Your task to perform on an android device: Show the shopping cart on ebay. Image 0: 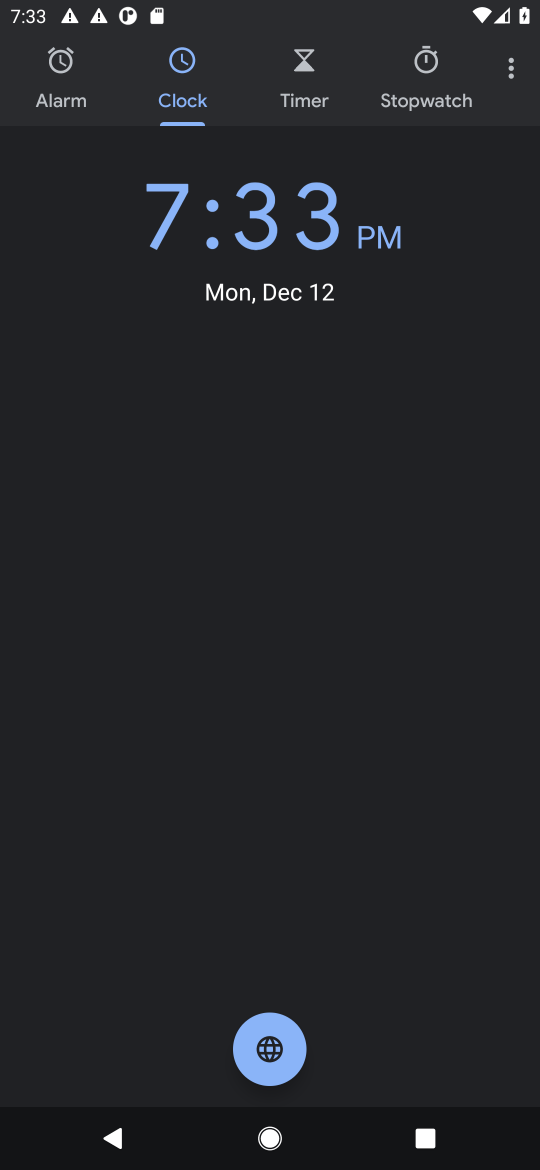
Step 0: press home button
Your task to perform on an android device: Show the shopping cart on ebay. Image 1: 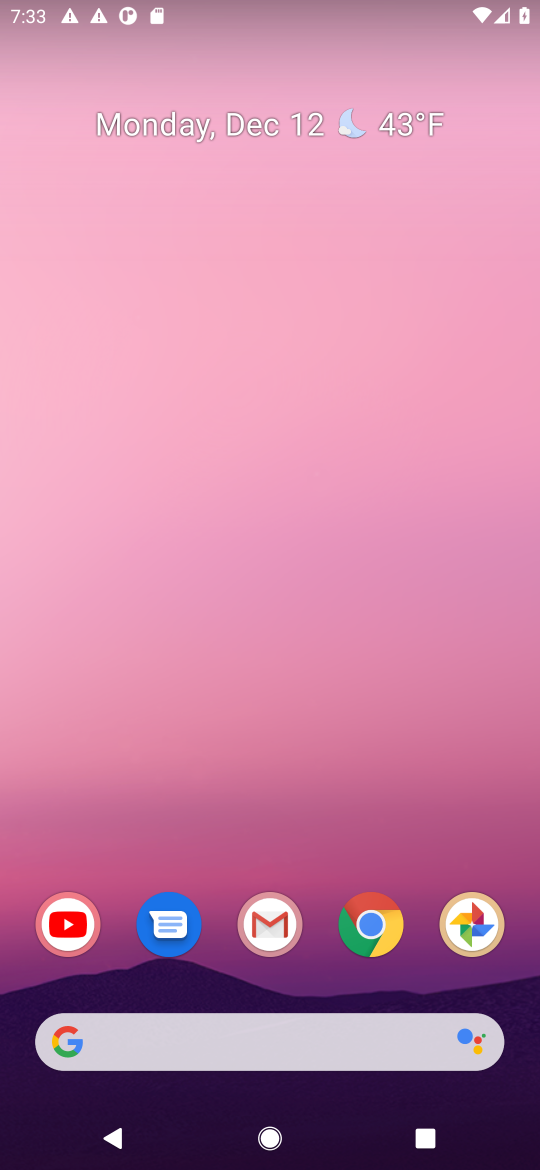
Step 1: click (295, 1039)
Your task to perform on an android device: Show the shopping cart on ebay. Image 2: 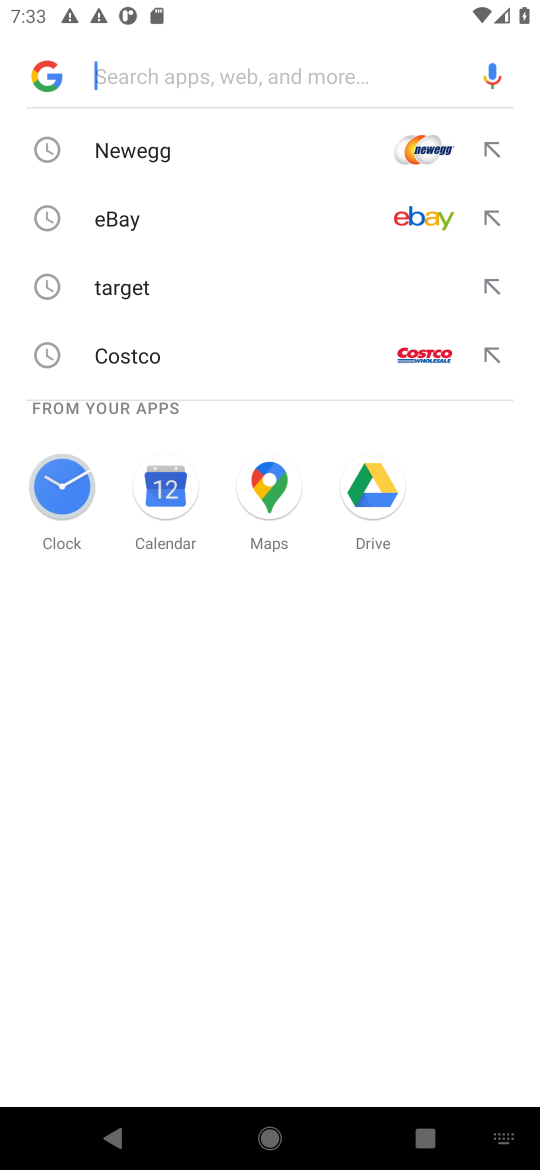
Step 2: click (114, 226)
Your task to perform on an android device: Show the shopping cart on ebay. Image 3: 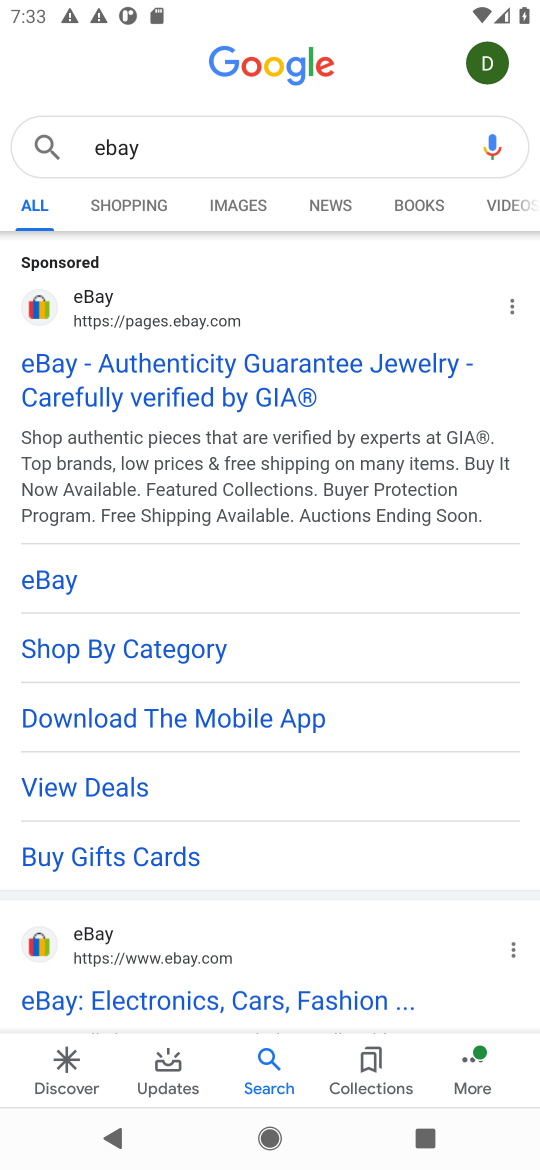
Step 3: click (100, 384)
Your task to perform on an android device: Show the shopping cart on ebay. Image 4: 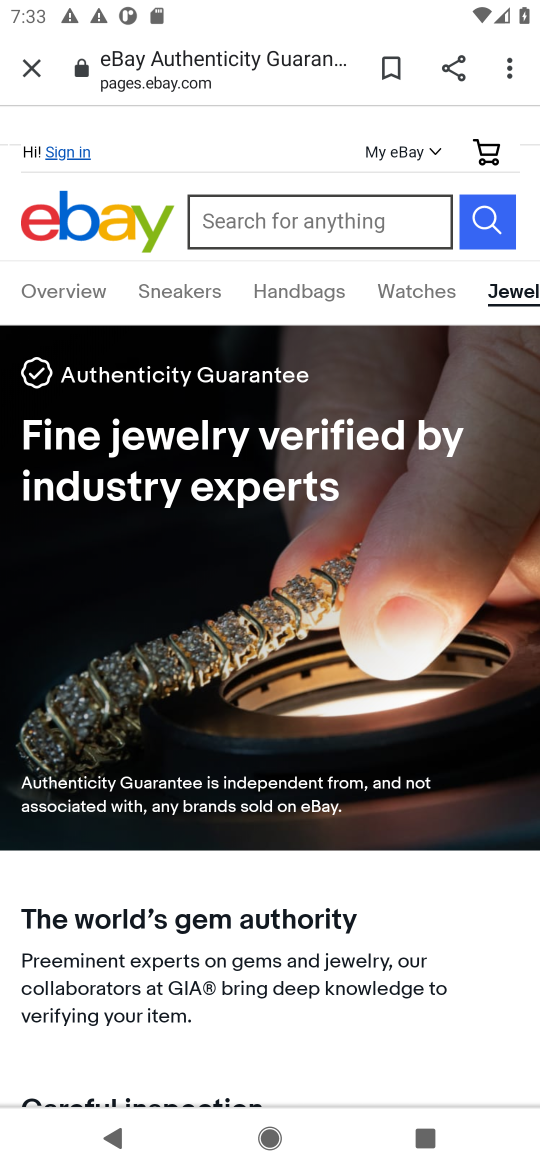
Step 4: click (490, 154)
Your task to perform on an android device: Show the shopping cart on ebay. Image 5: 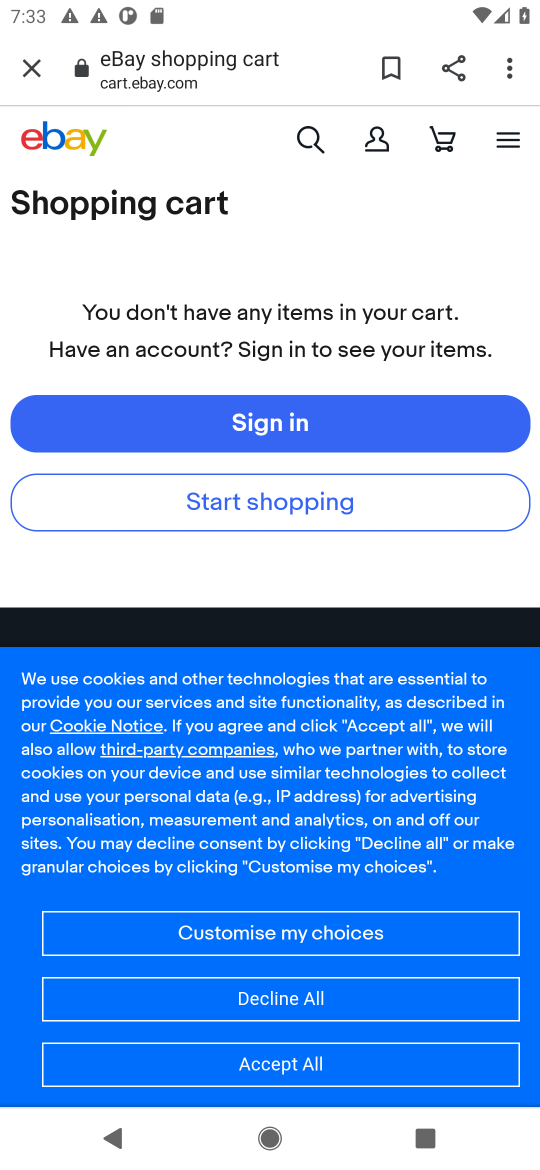
Step 5: task complete